Your task to perform on an android device: Open the calendar and show me this week's events? Image 0: 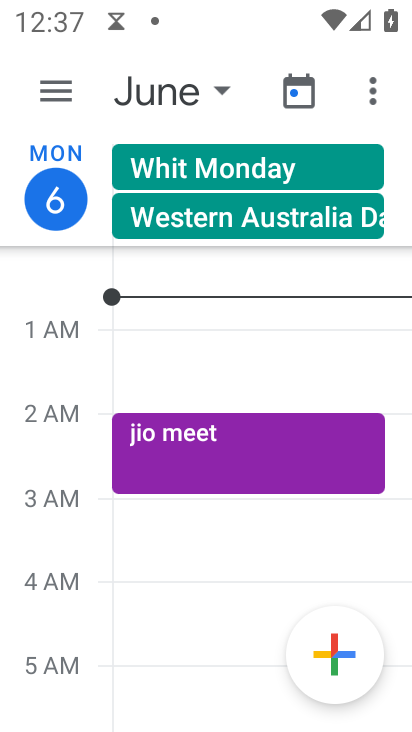
Step 0: click (123, 94)
Your task to perform on an android device: Open the calendar and show me this week's events? Image 1: 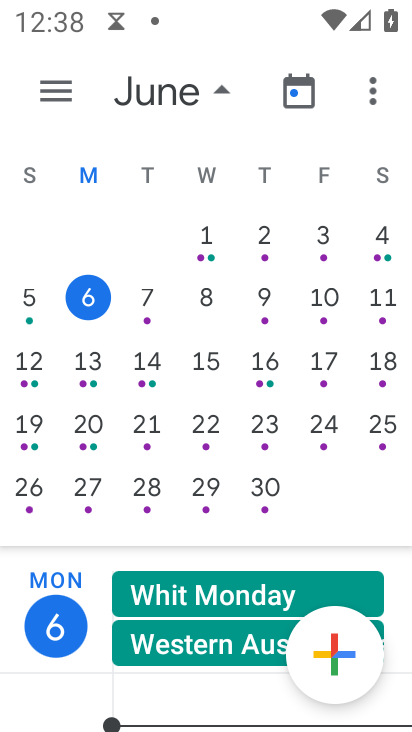
Step 1: click (336, 312)
Your task to perform on an android device: Open the calendar and show me this week's events? Image 2: 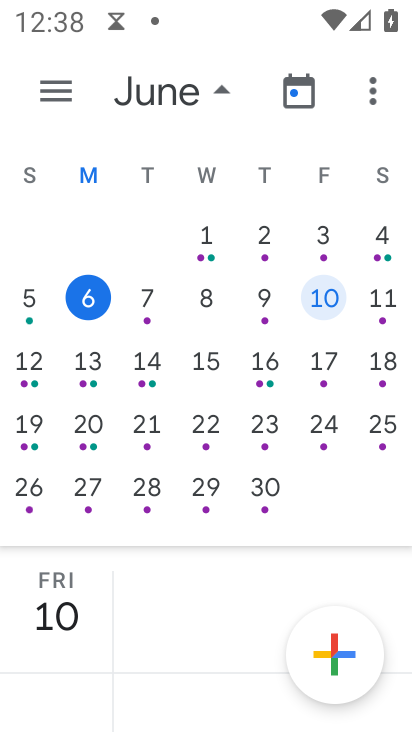
Step 2: task complete